Your task to perform on an android device: Search for Italian restaurants on Maps Image 0: 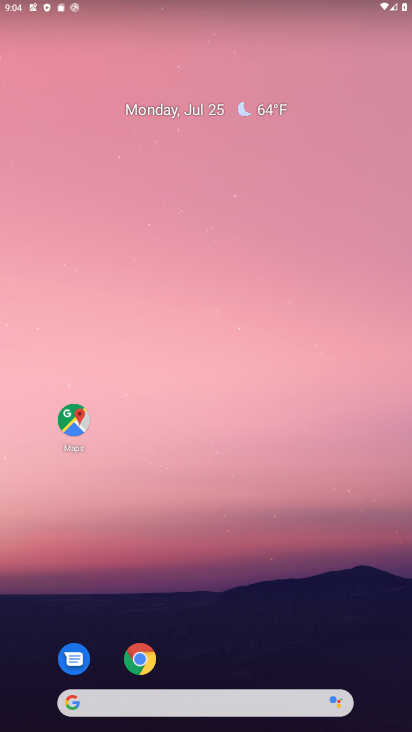
Step 0: press home button
Your task to perform on an android device: Search for Italian restaurants on Maps Image 1: 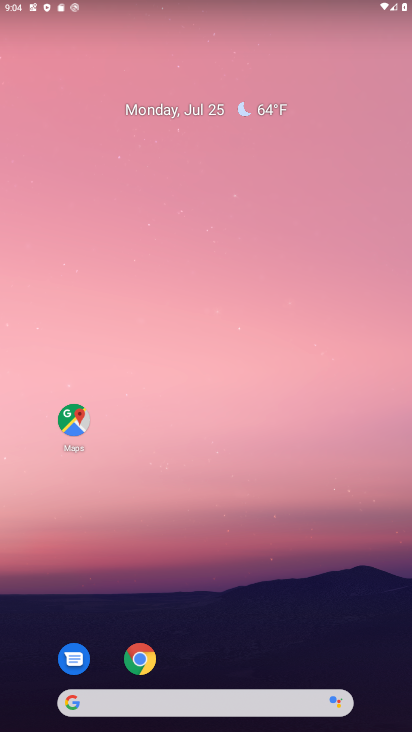
Step 1: drag from (334, 605) to (357, 138)
Your task to perform on an android device: Search for Italian restaurants on Maps Image 2: 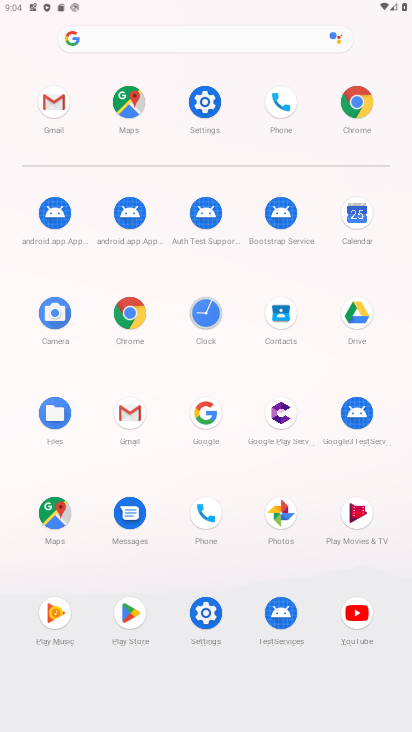
Step 2: click (54, 512)
Your task to perform on an android device: Search for Italian restaurants on Maps Image 3: 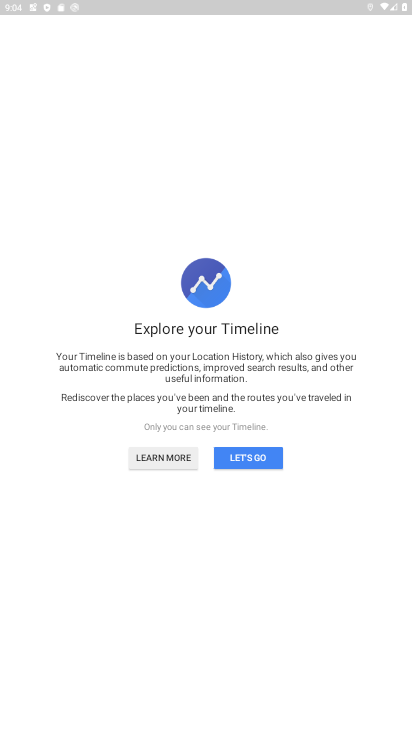
Step 3: press back button
Your task to perform on an android device: Search for Italian restaurants on Maps Image 4: 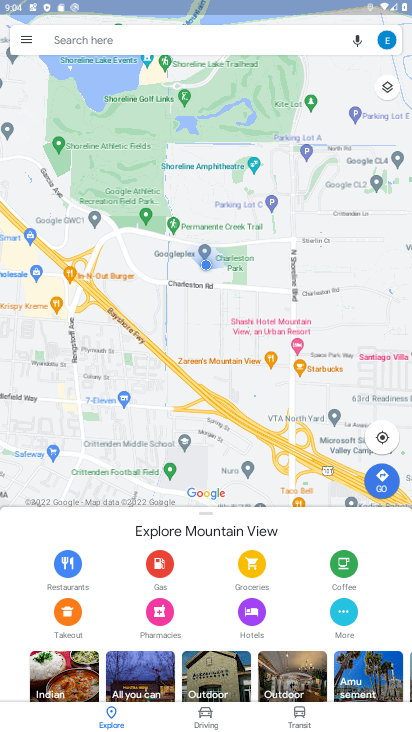
Step 4: click (111, 45)
Your task to perform on an android device: Search for Italian restaurants on Maps Image 5: 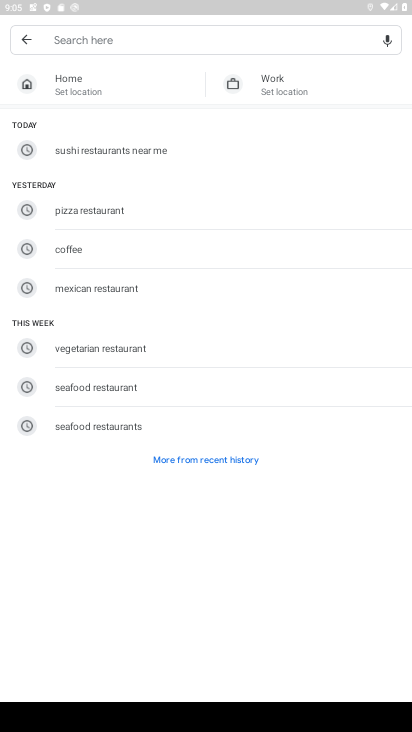
Step 5: type "italian restaurants"
Your task to perform on an android device: Search for Italian restaurants on Maps Image 6: 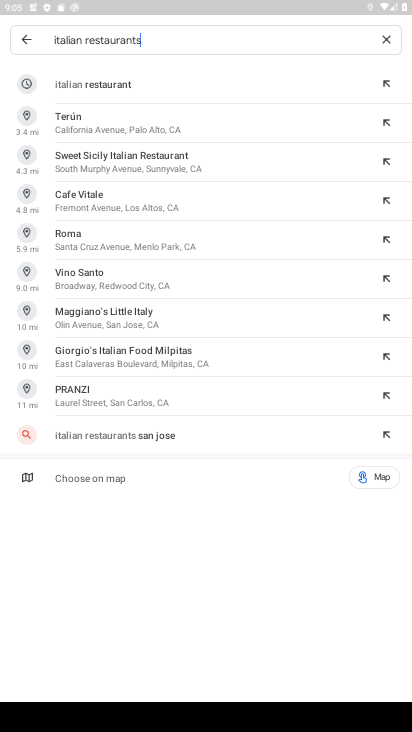
Step 6: click (253, 84)
Your task to perform on an android device: Search for Italian restaurants on Maps Image 7: 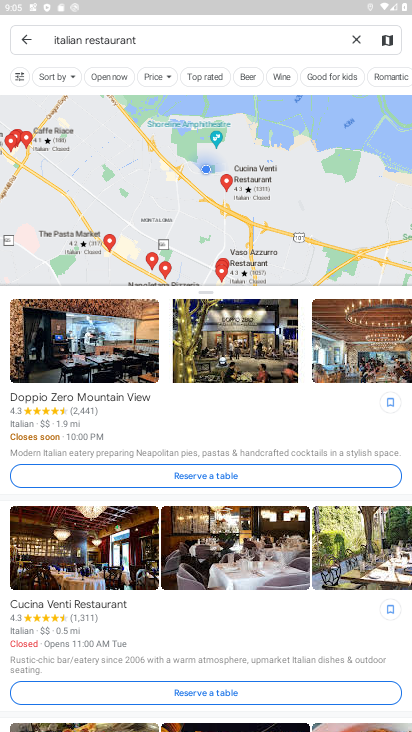
Step 7: task complete